Your task to perform on an android device: When is my next meeting? Image 0: 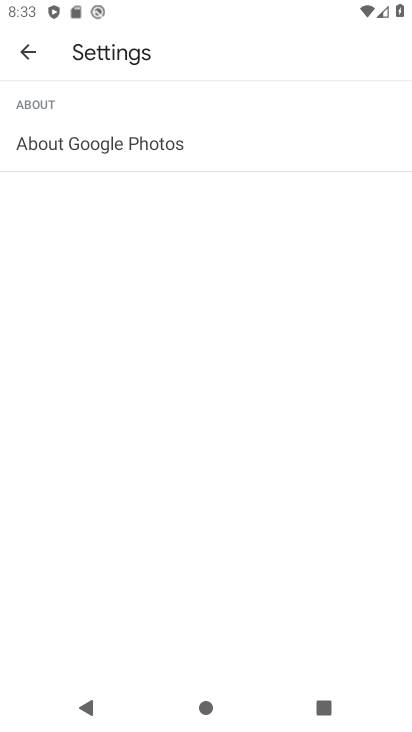
Step 0: press home button
Your task to perform on an android device: When is my next meeting? Image 1: 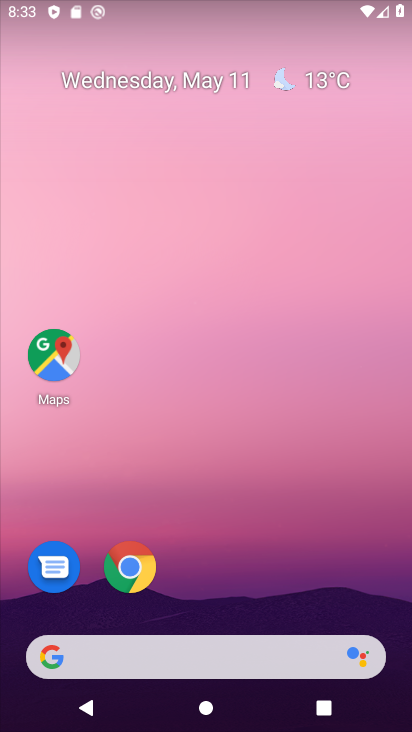
Step 1: drag from (236, 634) to (279, 48)
Your task to perform on an android device: When is my next meeting? Image 2: 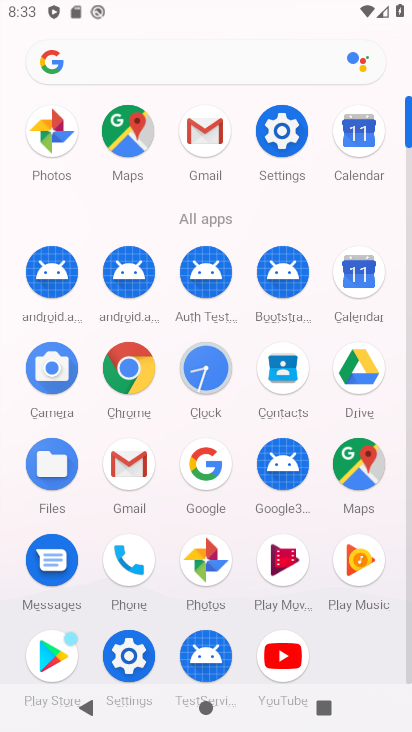
Step 2: click (344, 294)
Your task to perform on an android device: When is my next meeting? Image 3: 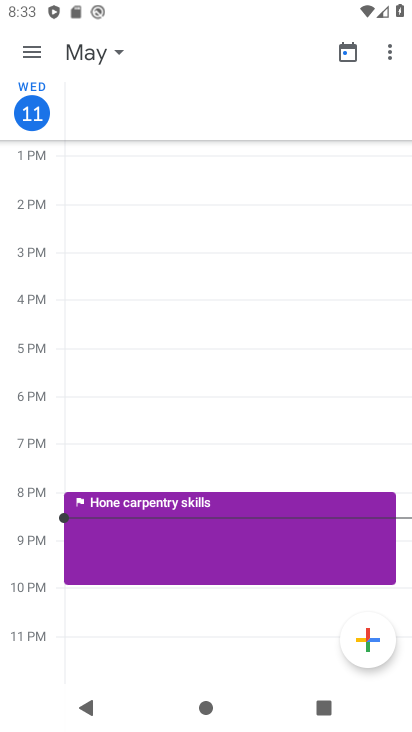
Step 3: click (34, 55)
Your task to perform on an android device: When is my next meeting? Image 4: 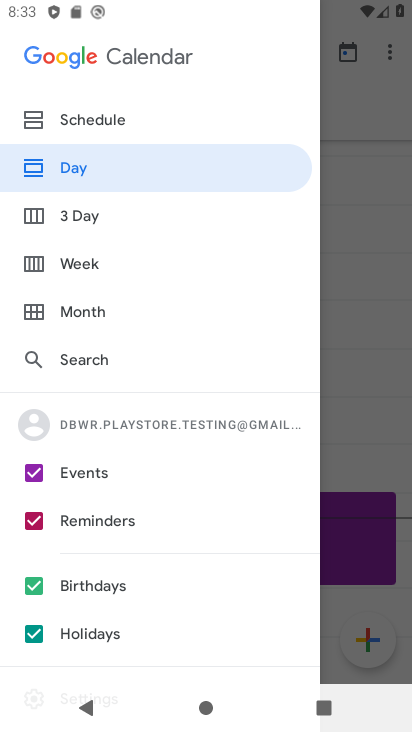
Step 4: click (94, 124)
Your task to perform on an android device: When is my next meeting? Image 5: 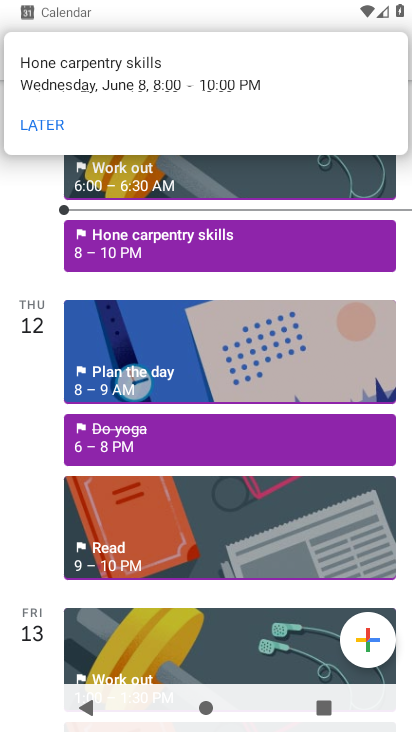
Step 5: drag from (194, 528) to (246, 168)
Your task to perform on an android device: When is my next meeting? Image 6: 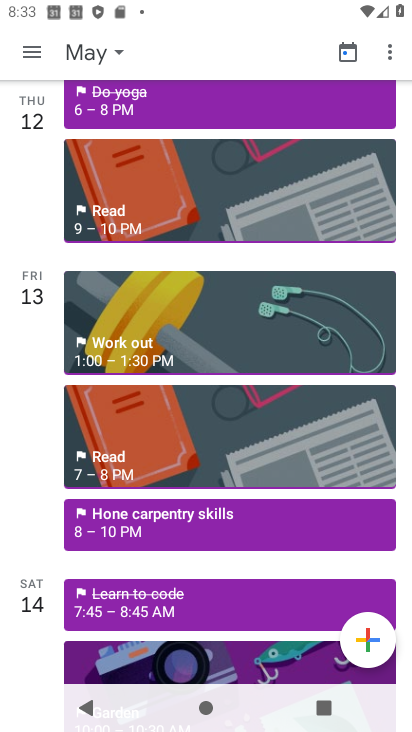
Step 6: drag from (223, 531) to (269, 200)
Your task to perform on an android device: When is my next meeting? Image 7: 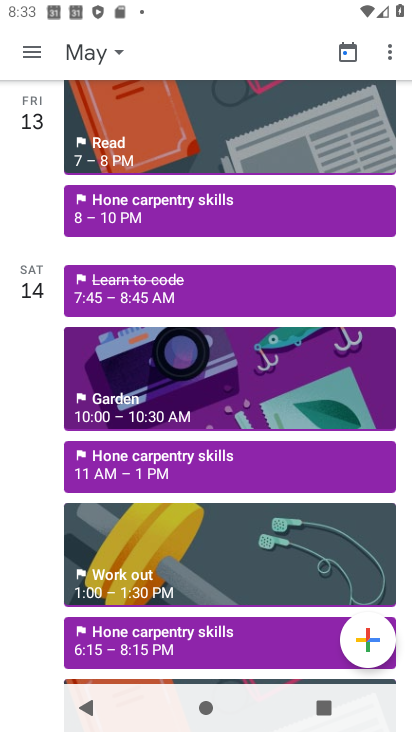
Step 7: drag from (234, 504) to (291, 109)
Your task to perform on an android device: When is my next meeting? Image 8: 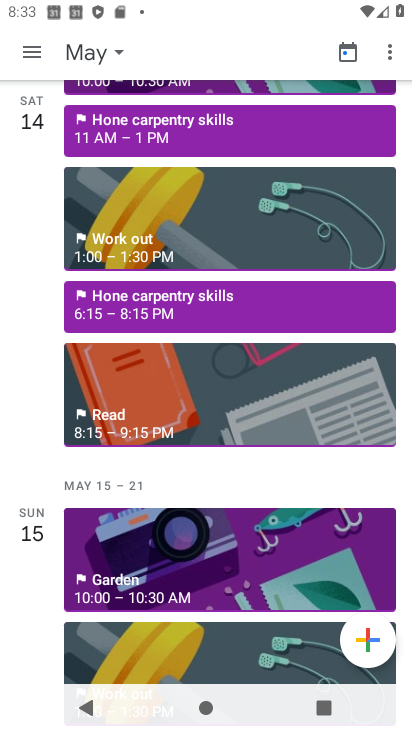
Step 8: drag from (233, 580) to (298, 126)
Your task to perform on an android device: When is my next meeting? Image 9: 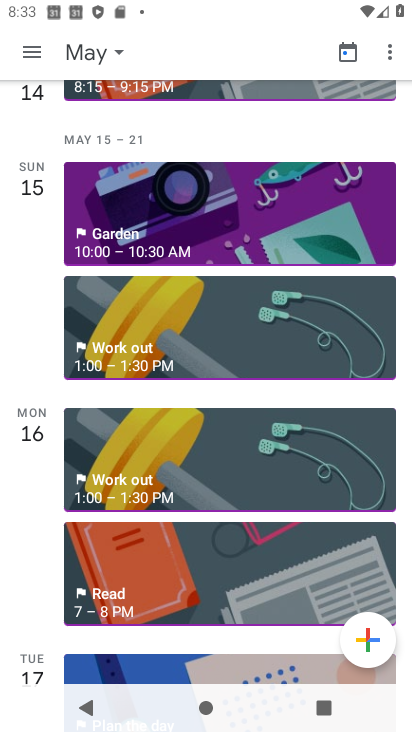
Step 9: drag from (201, 554) to (195, 54)
Your task to perform on an android device: When is my next meeting? Image 10: 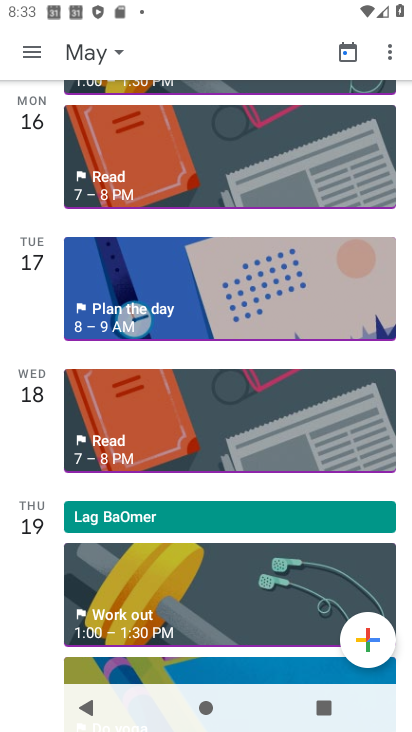
Step 10: drag from (132, 605) to (172, 162)
Your task to perform on an android device: When is my next meeting? Image 11: 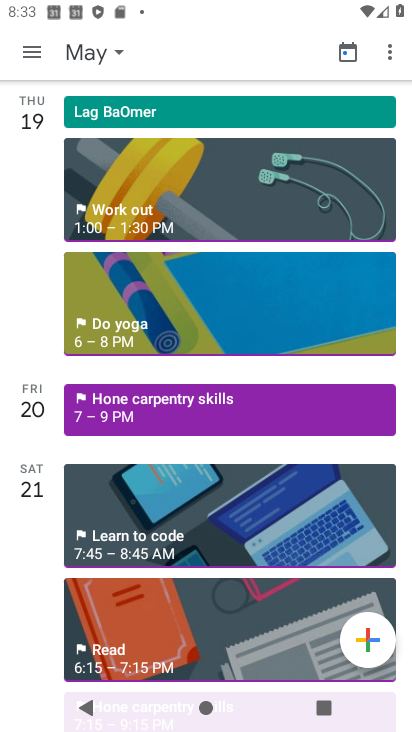
Step 11: drag from (164, 599) to (217, 217)
Your task to perform on an android device: When is my next meeting? Image 12: 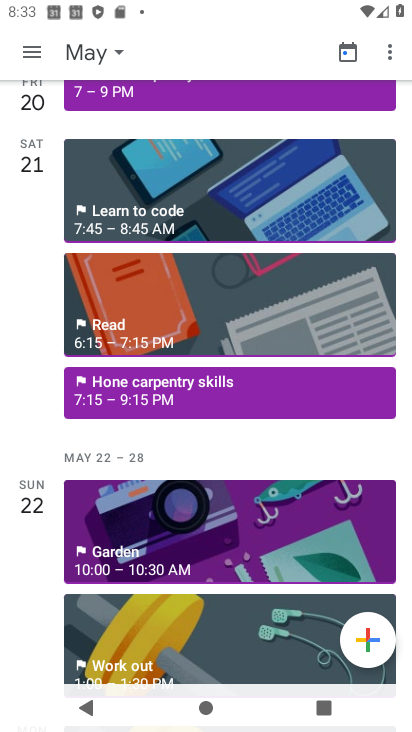
Step 12: drag from (239, 598) to (289, 255)
Your task to perform on an android device: When is my next meeting? Image 13: 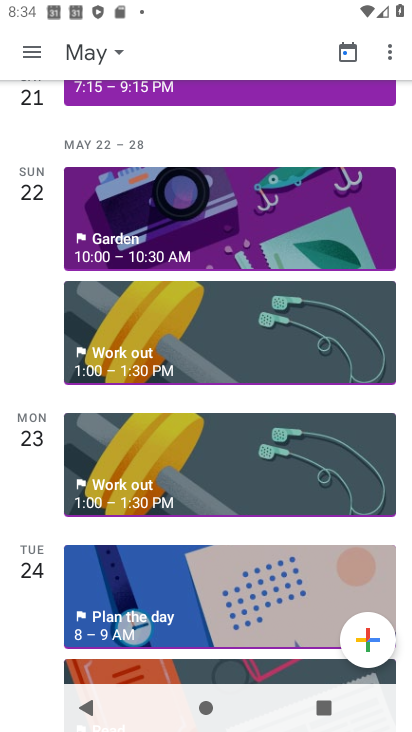
Step 13: drag from (245, 646) to (288, 143)
Your task to perform on an android device: When is my next meeting? Image 14: 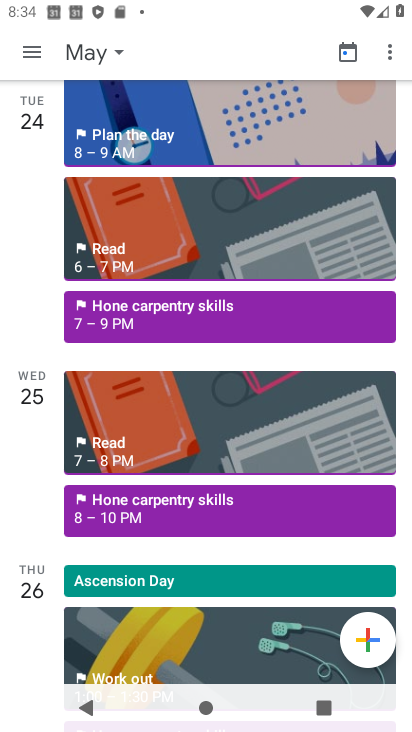
Step 14: drag from (168, 633) to (243, 122)
Your task to perform on an android device: When is my next meeting? Image 15: 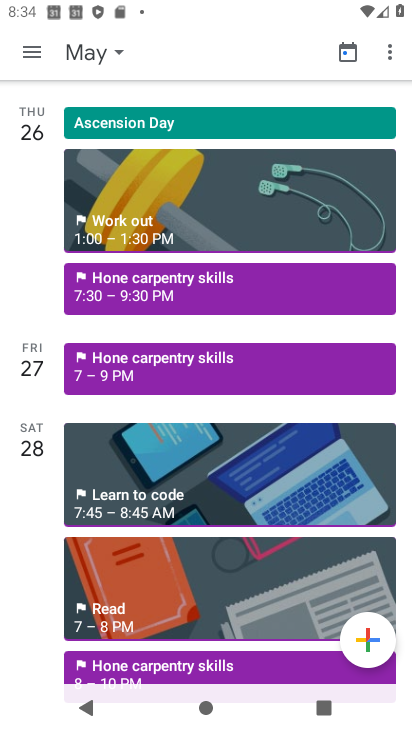
Step 15: drag from (188, 615) to (299, 51)
Your task to perform on an android device: When is my next meeting? Image 16: 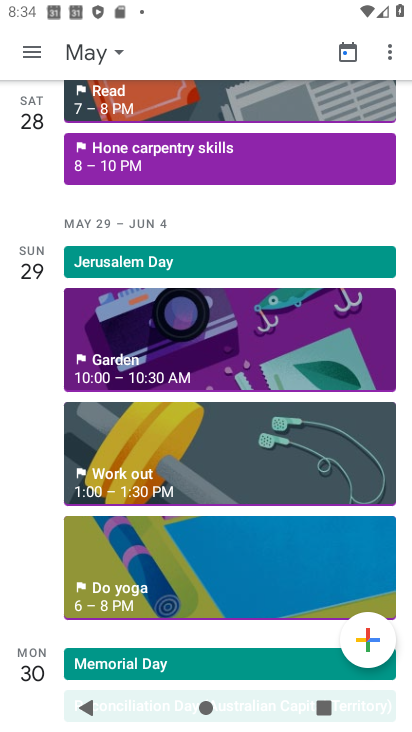
Step 16: drag from (189, 545) to (274, 177)
Your task to perform on an android device: When is my next meeting? Image 17: 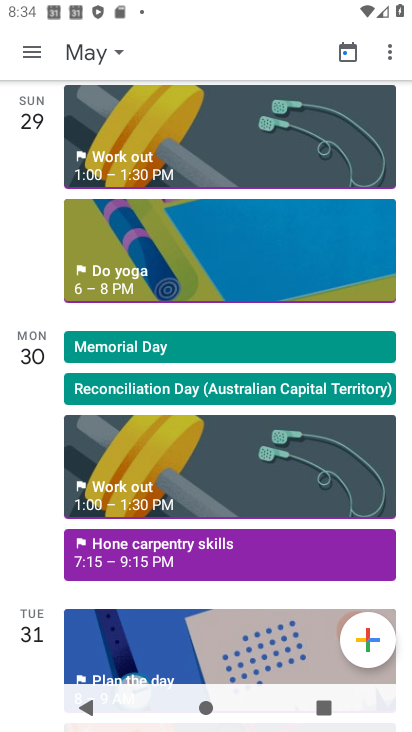
Step 17: drag from (182, 574) to (243, 236)
Your task to perform on an android device: When is my next meeting? Image 18: 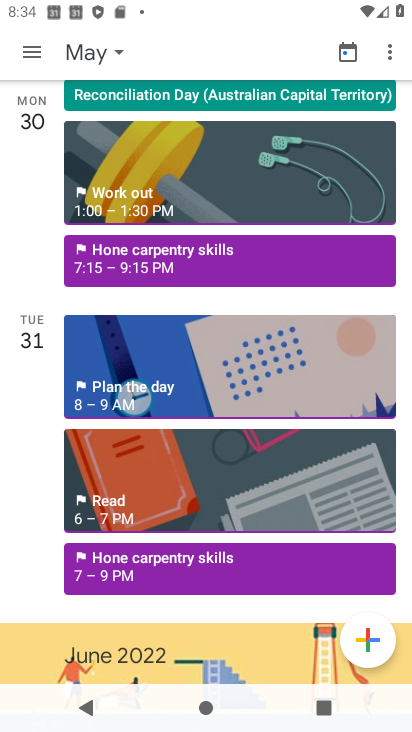
Step 18: drag from (194, 629) to (260, 98)
Your task to perform on an android device: When is my next meeting? Image 19: 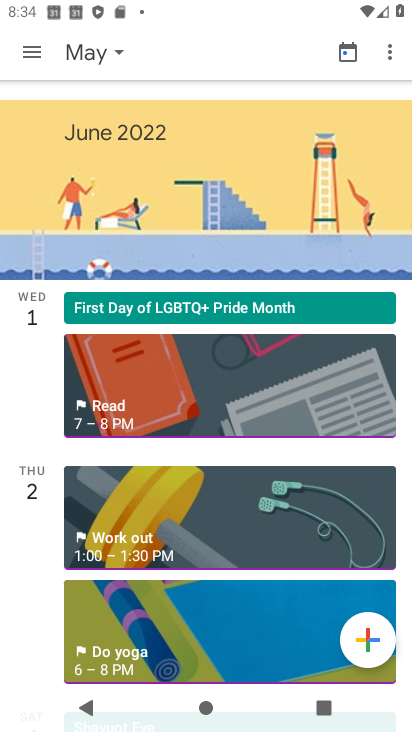
Step 19: drag from (185, 621) to (248, 217)
Your task to perform on an android device: When is my next meeting? Image 20: 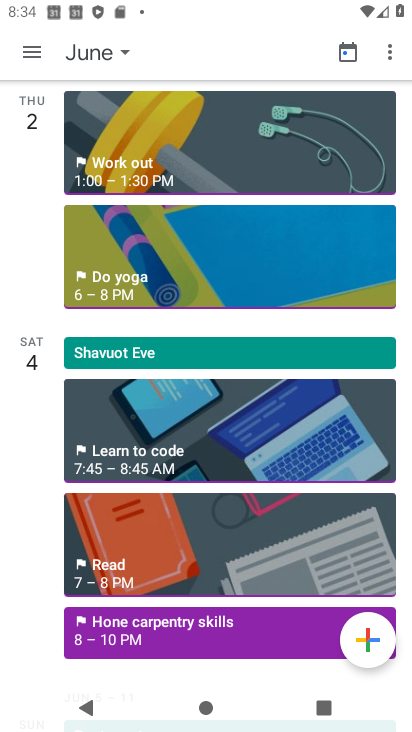
Step 20: drag from (185, 516) to (251, 148)
Your task to perform on an android device: When is my next meeting? Image 21: 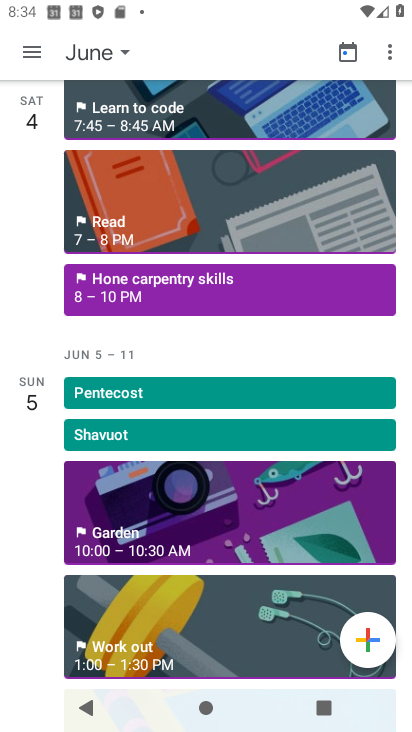
Step 21: drag from (209, 578) to (248, 336)
Your task to perform on an android device: When is my next meeting? Image 22: 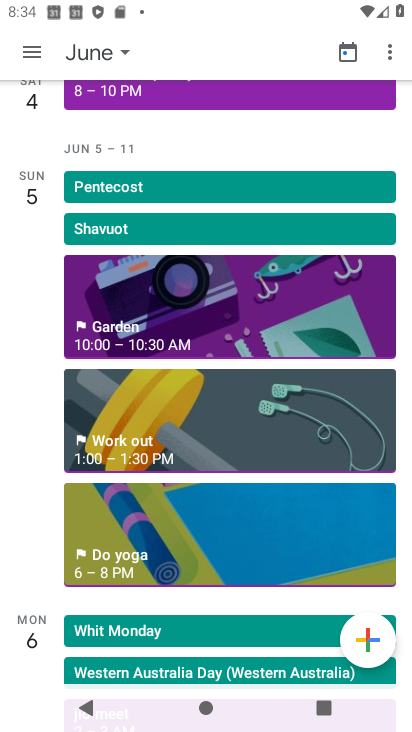
Step 22: drag from (215, 641) to (274, 86)
Your task to perform on an android device: When is my next meeting? Image 23: 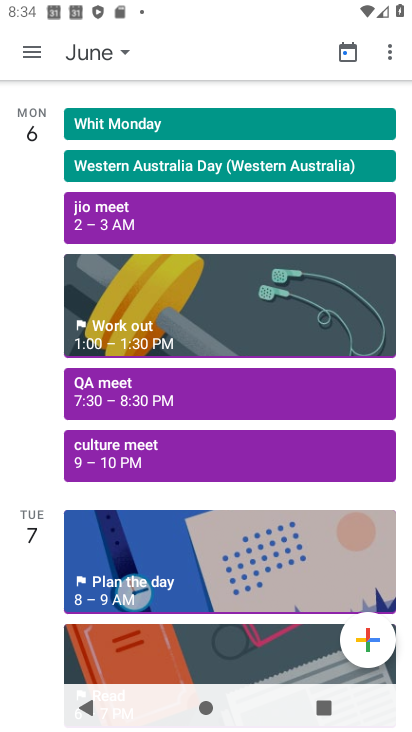
Step 23: click (175, 221)
Your task to perform on an android device: When is my next meeting? Image 24: 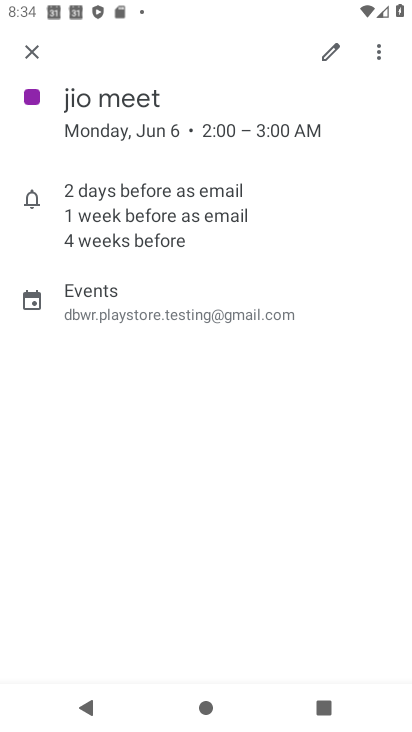
Step 24: task complete